Your task to perform on an android device: turn off data saver in the chrome app Image 0: 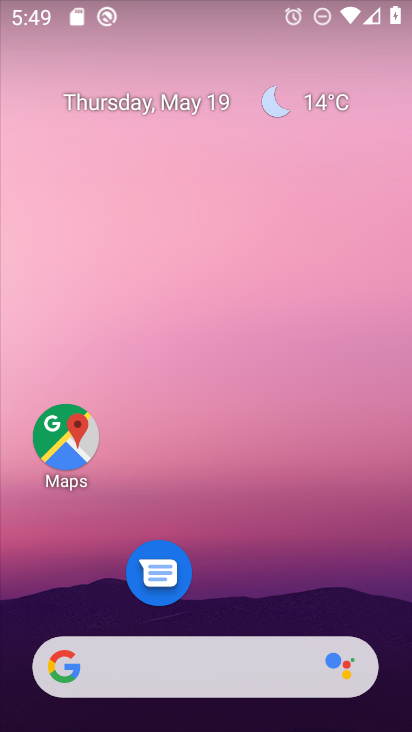
Step 0: drag from (251, 616) to (295, 150)
Your task to perform on an android device: turn off data saver in the chrome app Image 1: 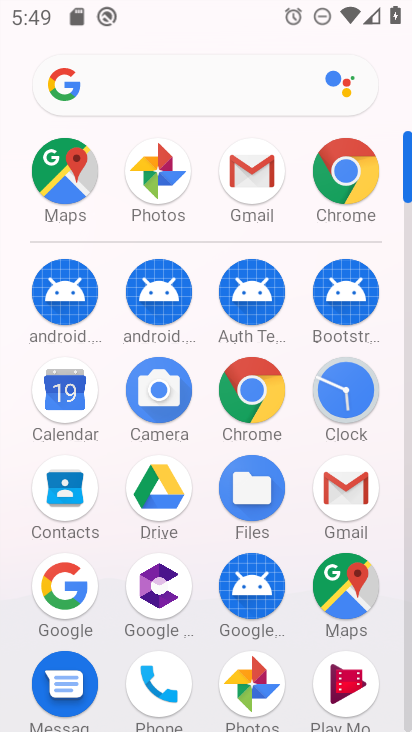
Step 1: click (347, 203)
Your task to perform on an android device: turn off data saver in the chrome app Image 2: 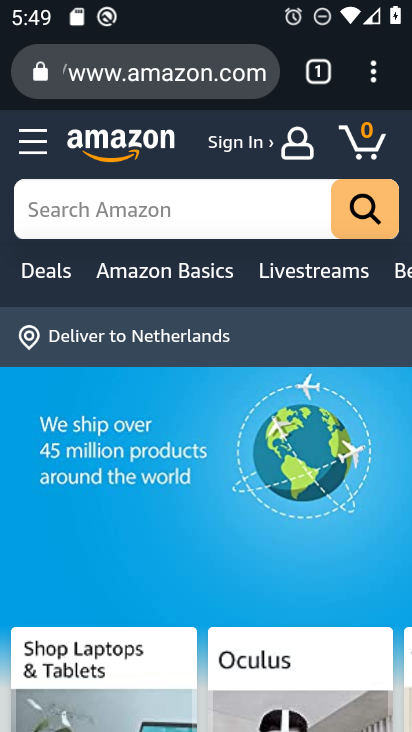
Step 2: click (370, 75)
Your task to perform on an android device: turn off data saver in the chrome app Image 3: 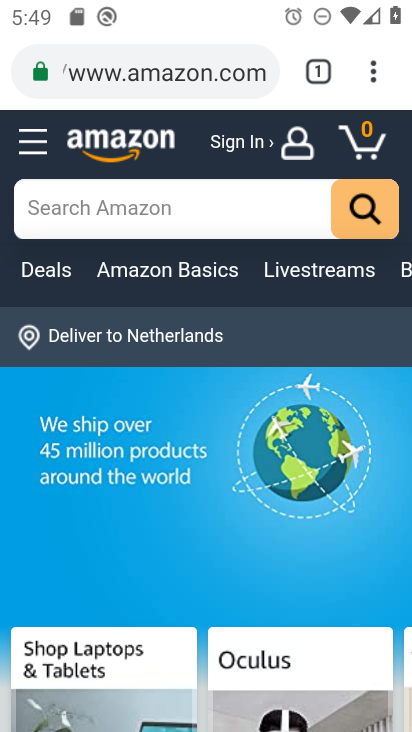
Step 3: click (372, 75)
Your task to perform on an android device: turn off data saver in the chrome app Image 4: 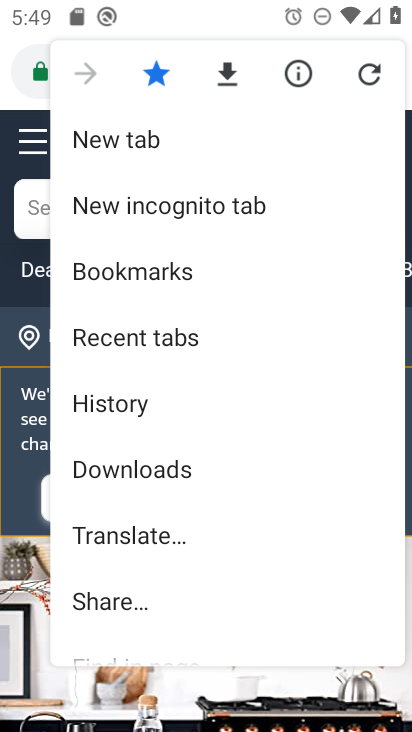
Step 4: drag from (216, 225) to (222, 157)
Your task to perform on an android device: turn off data saver in the chrome app Image 5: 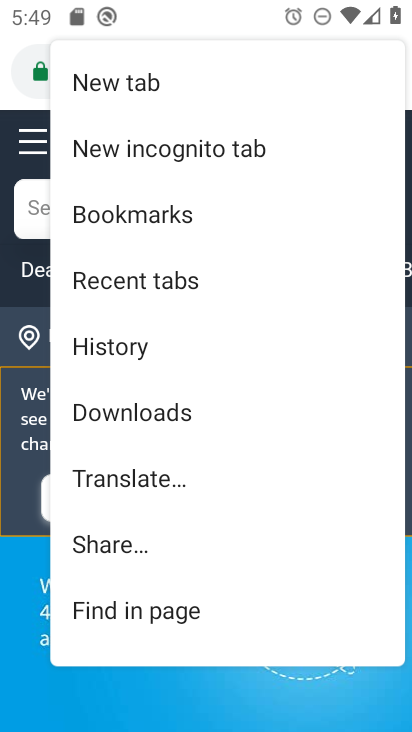
Step 5: drag from (147, 579) to (151, 227)
Your task to perform on an android device: turn off data saver in the chrome app Image 6: 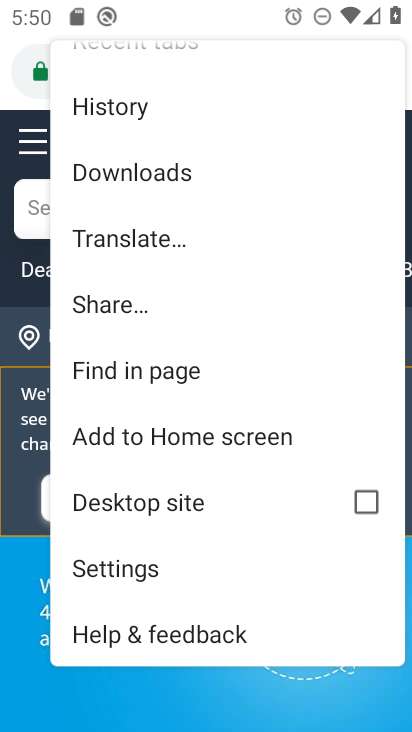
Step 6: click (134, 570)
Your task to perform on an android device: turn off data saver in the chrome app Image 7: 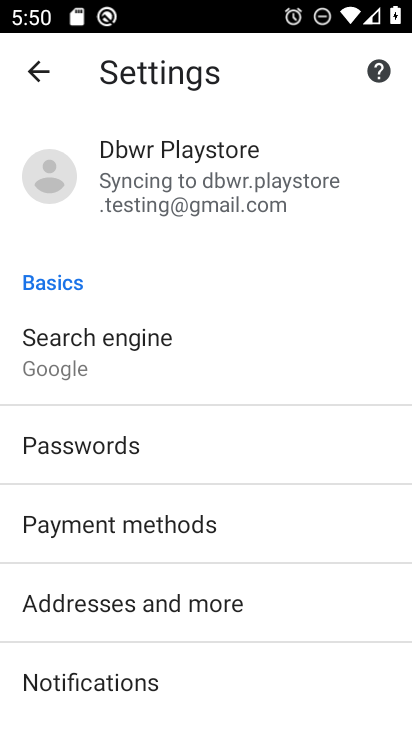
Step 7: drag from (180, 649) to (200, 375)
Your task to perform on an android device: turn off data saver in the chrome app Image 8: 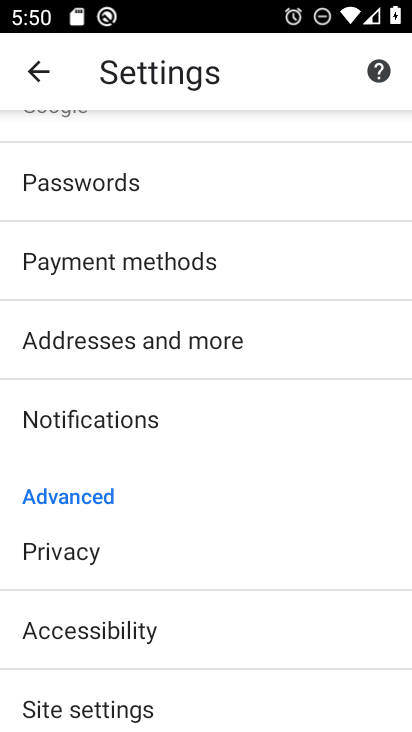
Step 8: drag from (117, 648) to (148, 342)
Your task to perform on an android device: turn off data saver in the chrome app Image 9: 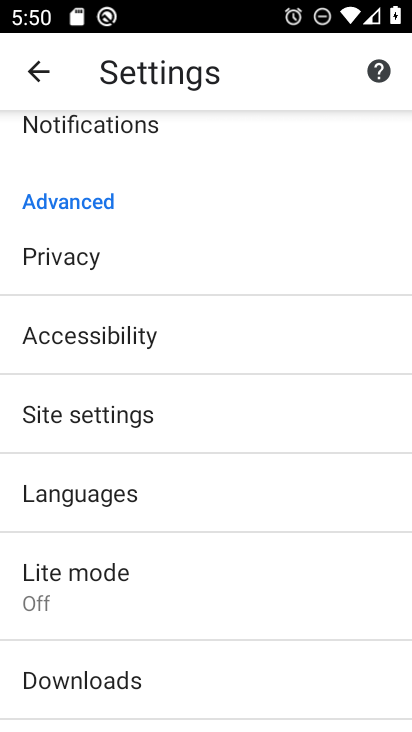
Step 9: click (81, 597)
Your task to perform on an android device: turn off data saver in the chrome app Image 10: 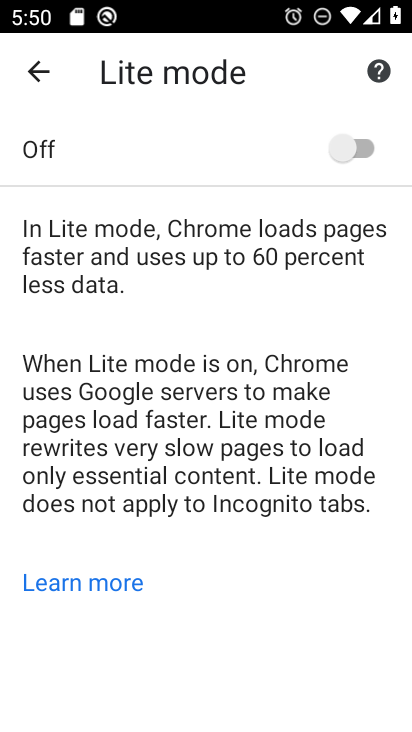
Step 10: task complete